Your task to perform on an android device: Open Maps and search for coffee Image 0: 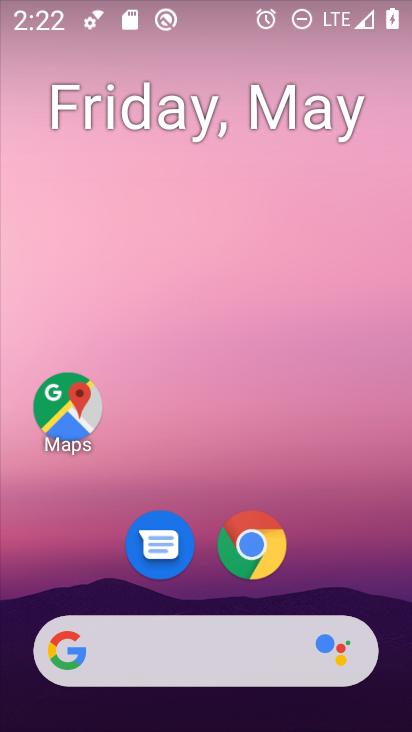
Step 0: click (52, 393)
Your task to perform on an android device: Open Maps and search for coffee Image 1: 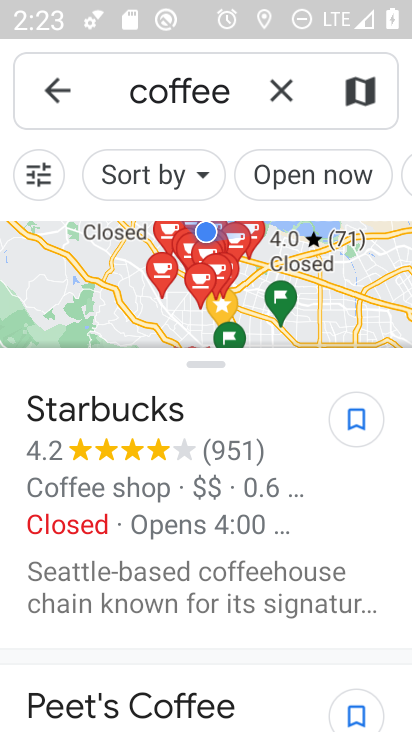
Step 1: task complete